Your task to perform on an android device: Search for Mexican restaurants on Maps Image 0: 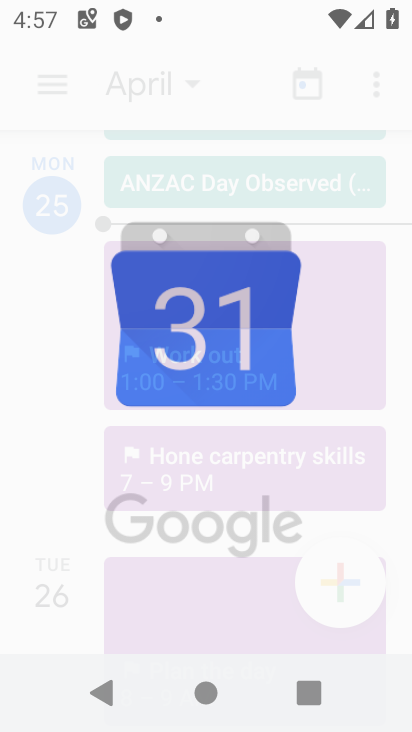
Step 0: drag from (330, 559) to (320, 15)
Your task to perform on an android device: Search for Mexican restaurants on Maps Image 1: 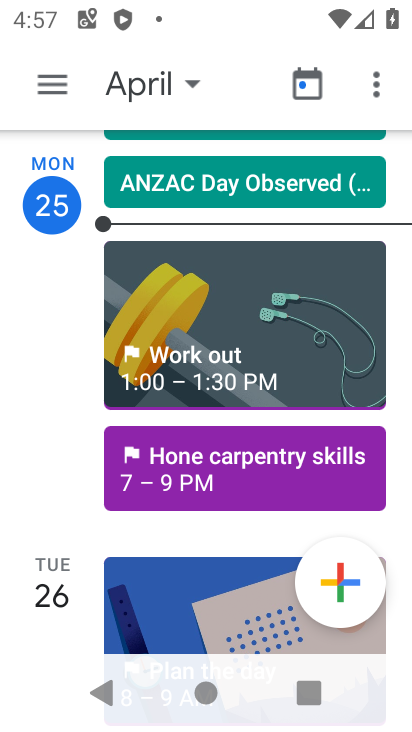
Step 1: press home button
Your task to perform on an android device: Search for Mexican restaurants on Maps Image 2: 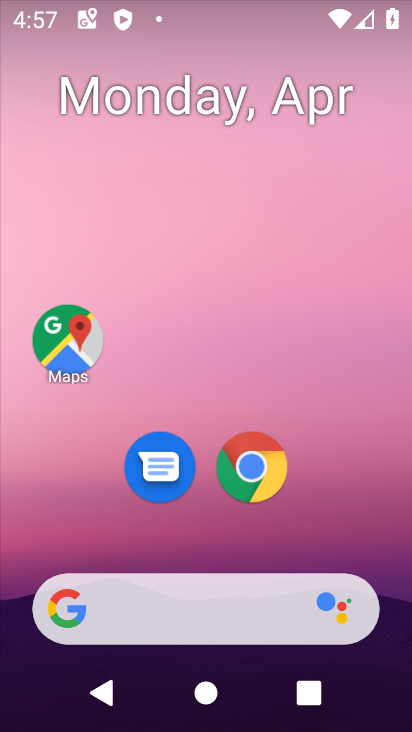
Step 2: drag from (281, 566) to (280, 40)
Your task to perform on an android device: Search for Mexican restaurants on Maps Image 3: 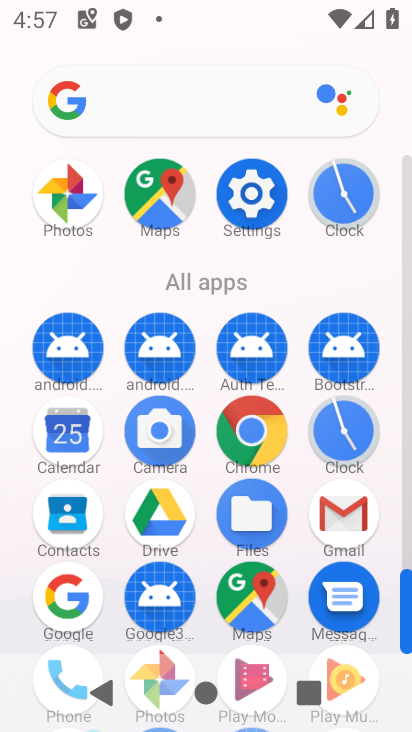
Step 3: click (248, 593)
Your task to perform on an android device: Search for Mexican restaurants on Maps Image 4: 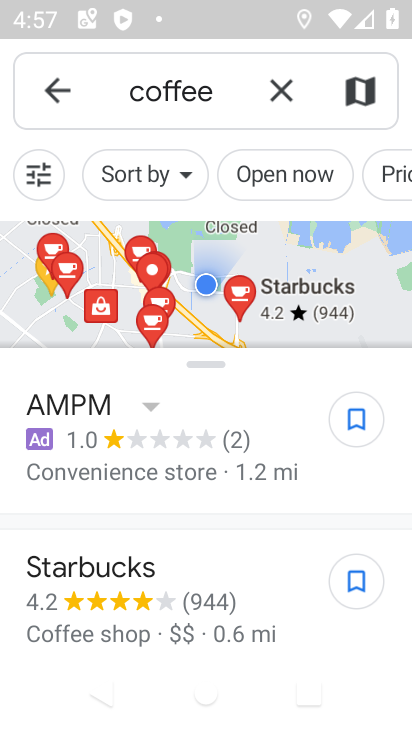
Step 4: click (277, 87)
Your task to perform on an android device: Search for Mexican restaurants on Maps Image 5: 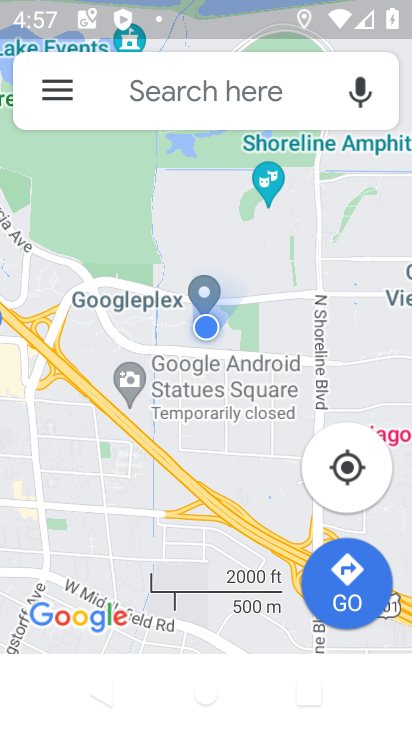
Step 5: click (277, 87)
Your task to perform on an android device: Search for Mexican restaurants on Maps Image 6: 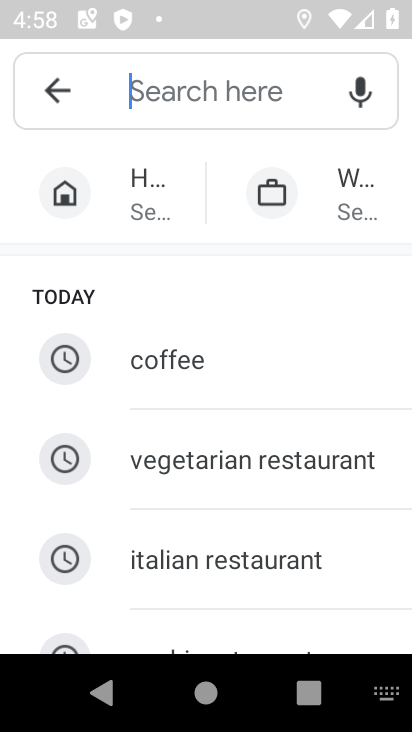
Step 6: drag from (270, 311) to (304, 153)
Your task to perform on an android device: Search for Mexican restaurants on Maps Image 7: 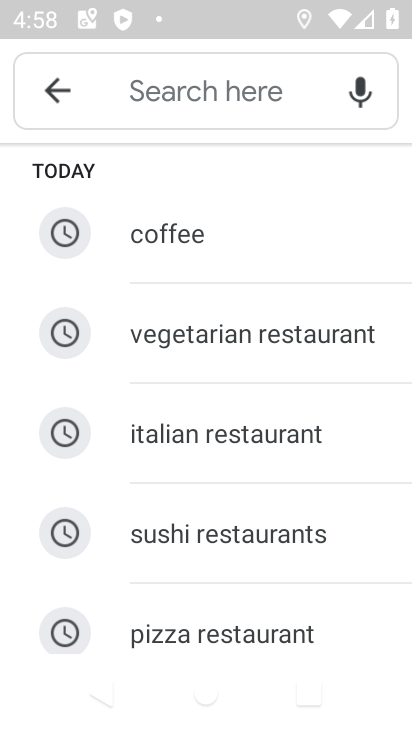
Step 7: drag from (221, 592) to (304, 165)
Your task to perform on an android device: Search for Mexican restaurants on Maps Image 8: 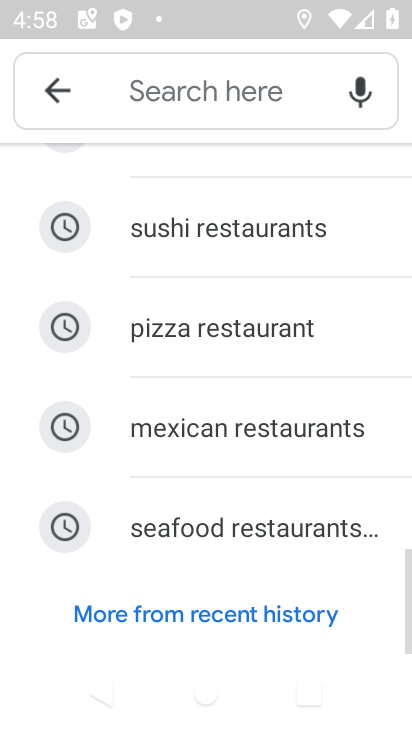
Step 8: click (311, 429)
Your task to perform on an android device: Search for Mexican restaurants on Maps Image 9: 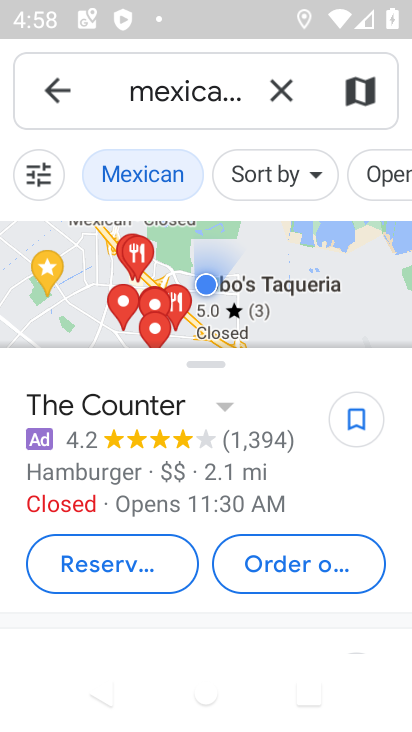
Step 9: task complete